Your task to perform on an android device: Go to Yahoo.com Image 0: 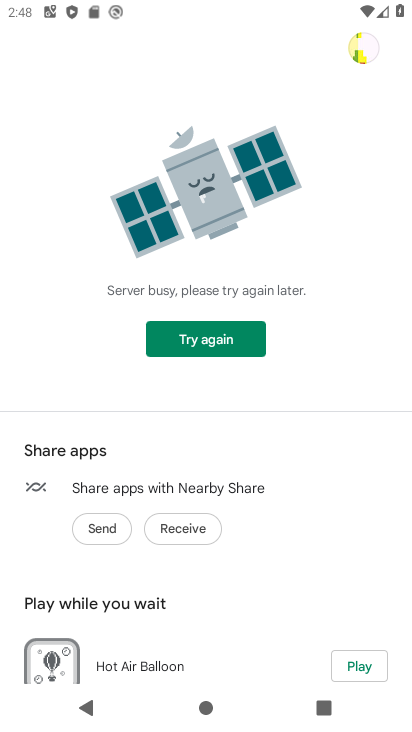
Step 0: press home button
Your task to perform on an android device: Go to Yahoo.com Image 1: 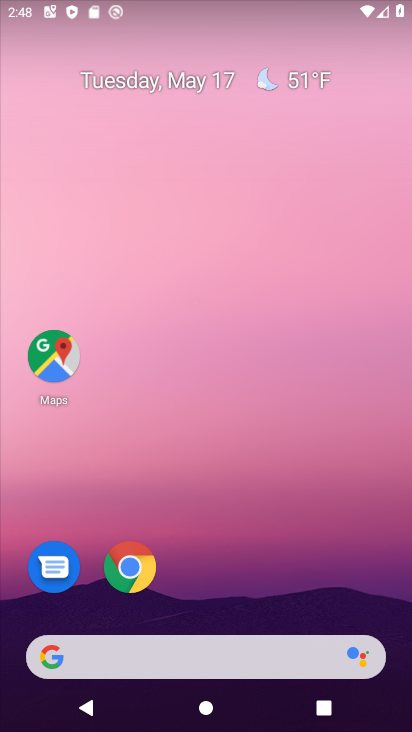
Step 1: click (141, 582)
Your task to perform on an android device: Go to Yahoo.com Image 2: 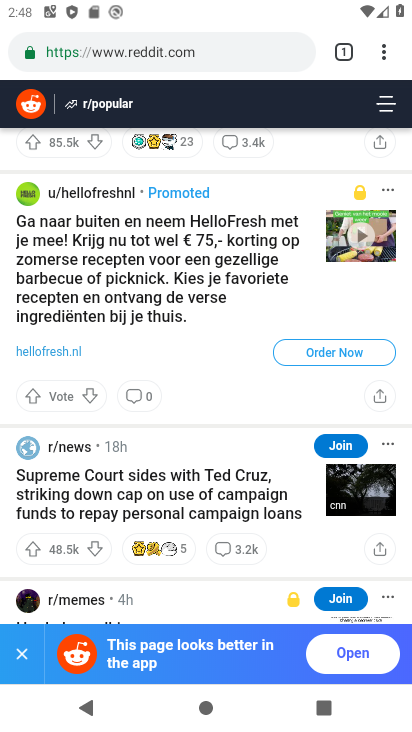
Step 2: click (170, 57)
Your task to perform on an android device: Go to Yahoo.com Image 3: 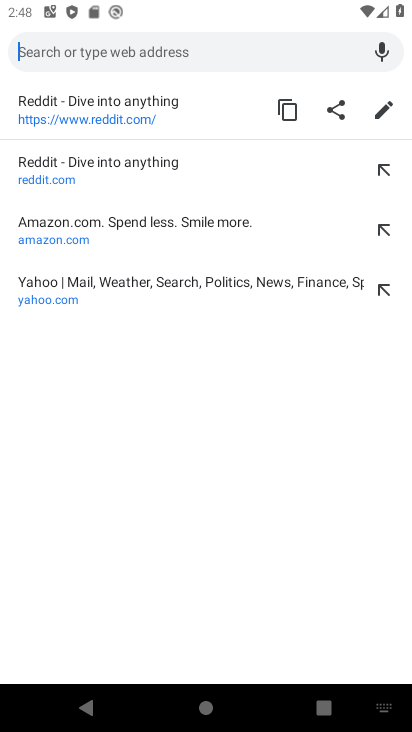
Step 3: click (85, 307)
Your task to perform on an android device: Go to Yahoo.com Image 4: 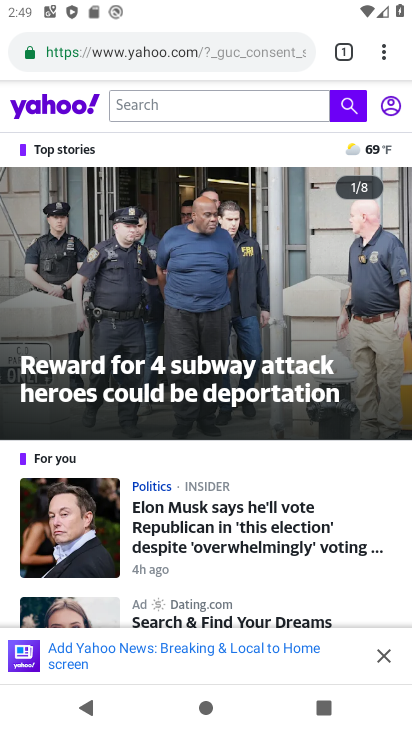
Step 4: task complete